Your task to perform on an android device: Open settings Image 0: 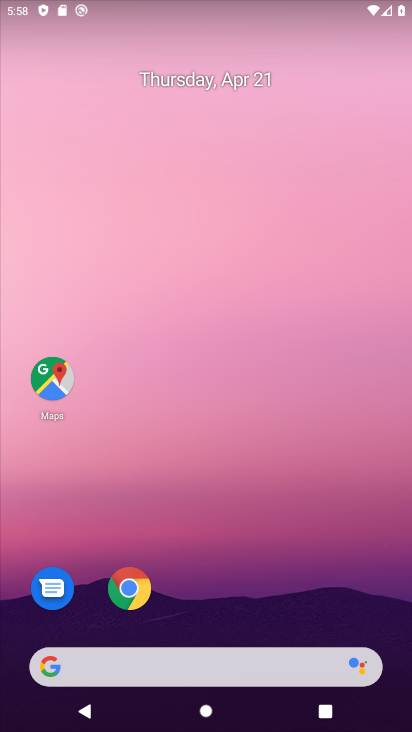
Step 0: drag from (228, 578) to (267, 268)
Your task to perform on an android device: Open settings Image 1: 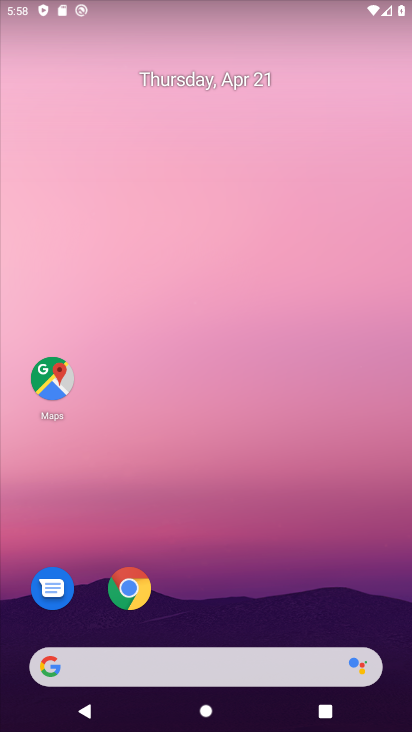
Step 1: drag from (264, 481) to (316, 193)
Your task to perform on an android device: Open settings Image 2: 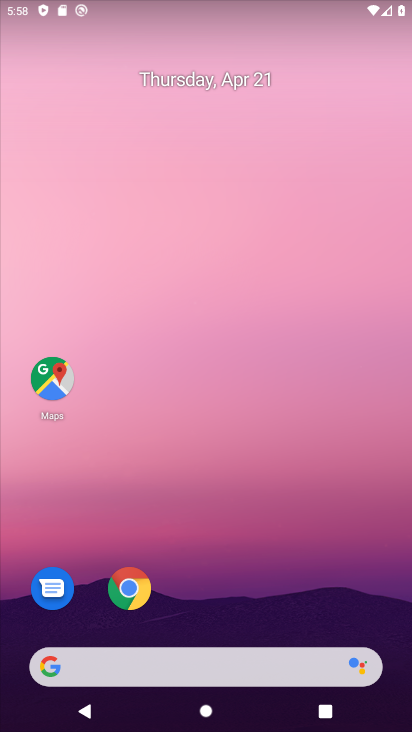
Step 2: drag from (242, 621) to (241, 45)
Your task to perform on an android device: Open settings Image 3: 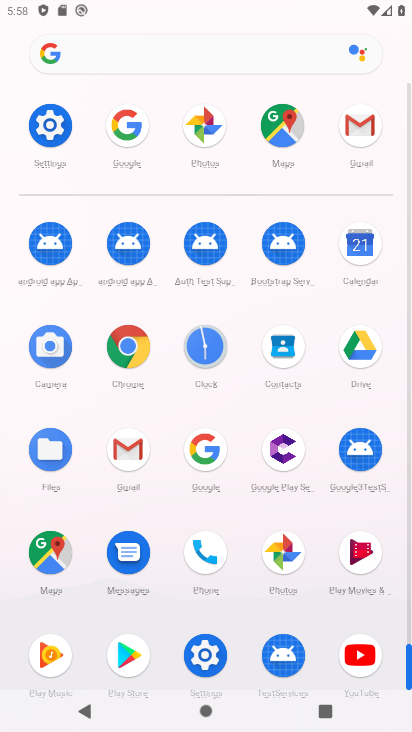
Step 3: click (57, 141)
Your task to perform on an android device: Open settings Image 4: 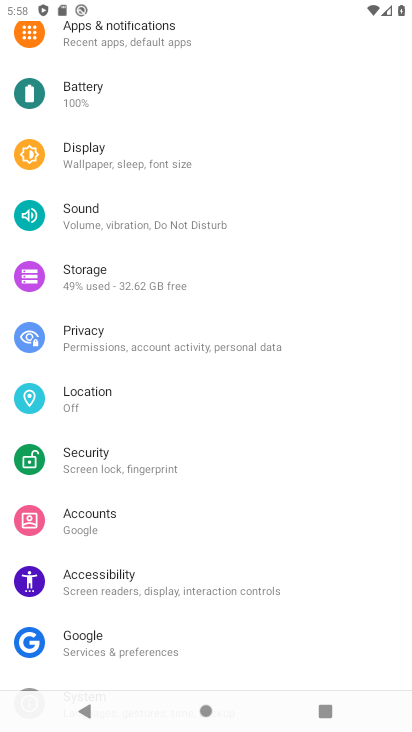
Step 4: task complete